Your task to perform on an android device: Open the web browser Image 0: 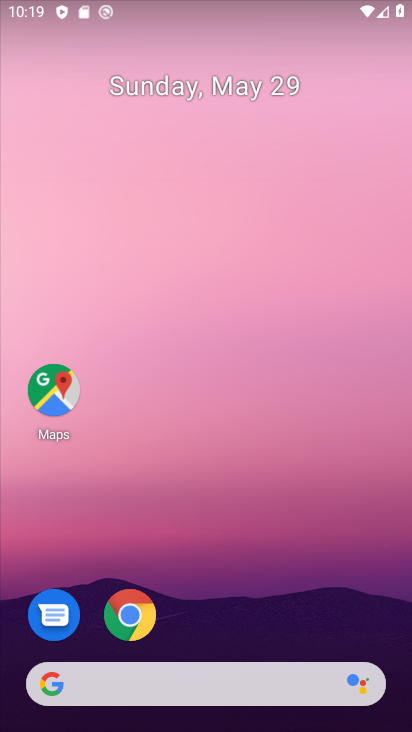
Step 0: drag from (381, 619) to (375, 159)
Your task to perform on an android device: Open the web browser Image 1: 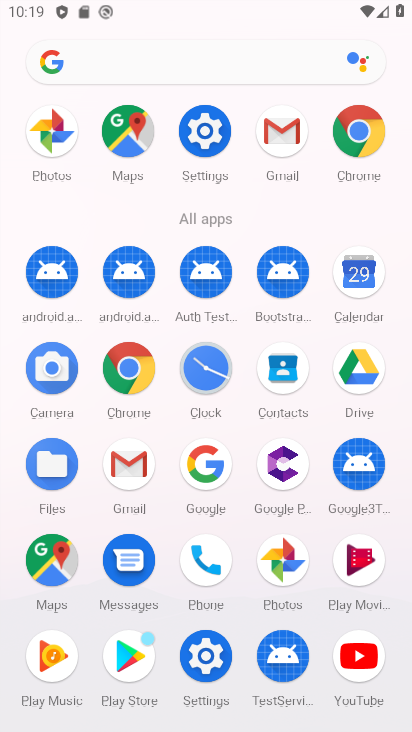
Step 1: click (127, 381)
Your task to perform on an android device: Open the web browser Image 2: 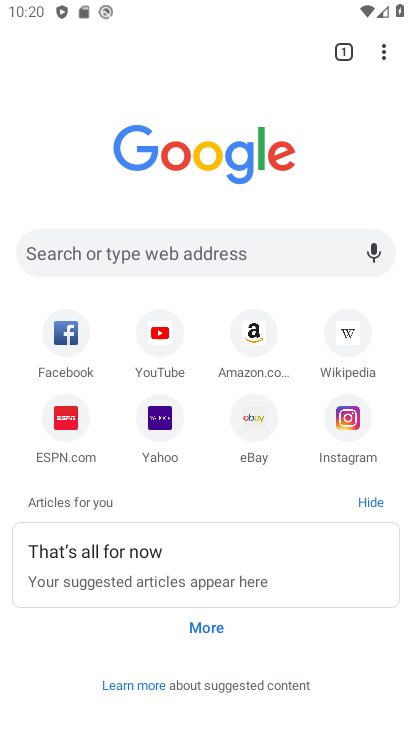
Step 2: task complete